Your task to perform on an android device: remove spam from my inbox in the gmail app Image 0: 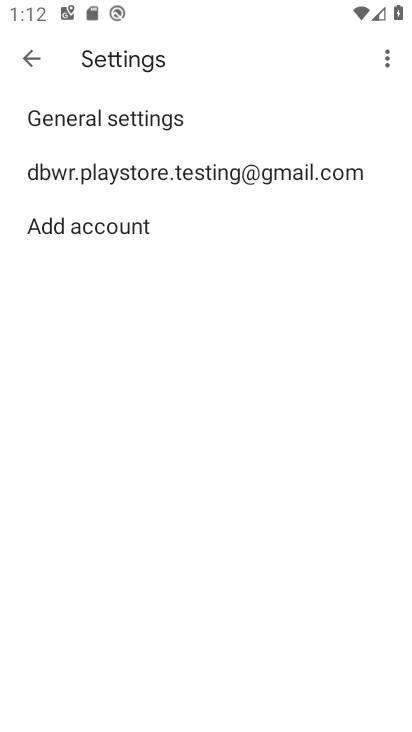
Step 0: press back button
Your task to perform on an android device: remove spam from my inbox in the gmail app Image 1: 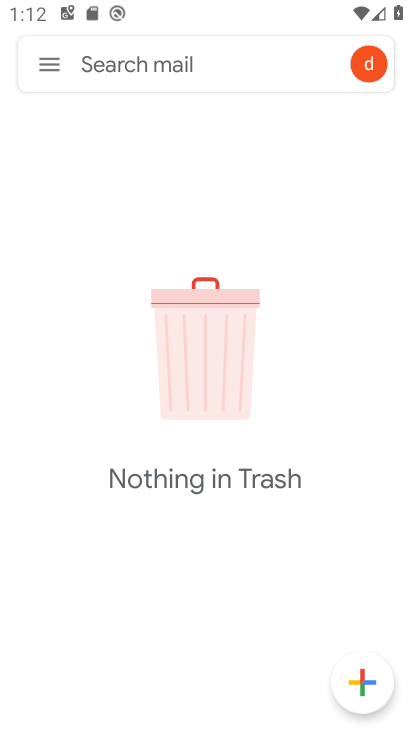
Step 1: click (52, 65)
Your task to perform on an android device: remove spam from my inbox in the gmail app Image 2: 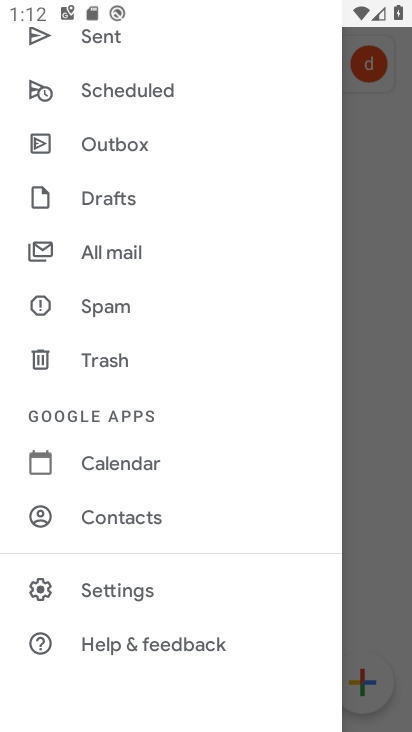
Step 2: click (163, 314)
Your task to perform on an android device: remove spam from my inbox in the gmail app Image 3: 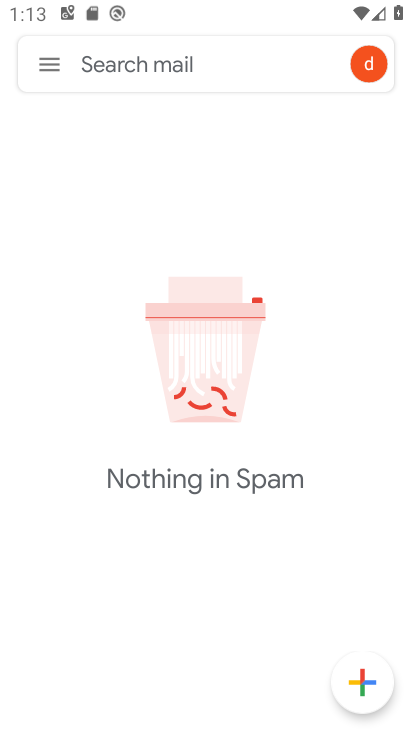
Step 3: task complete